Your task to perform on an android device: turn off location history Image 0: 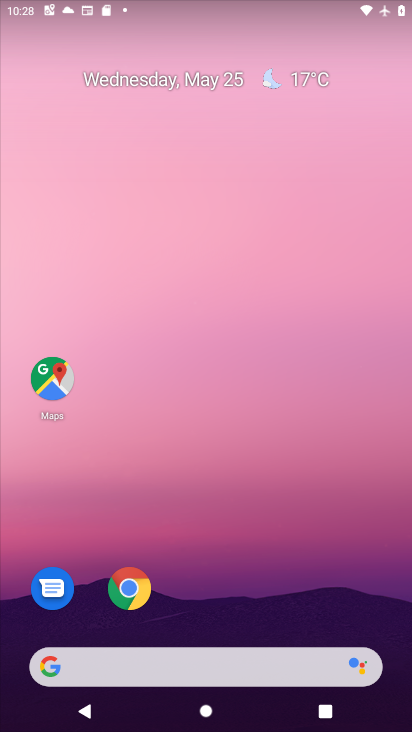
Step 0: drag from (372, 601) to (358, 86)
Your task to perform on an android device: turn off location history Image 1: 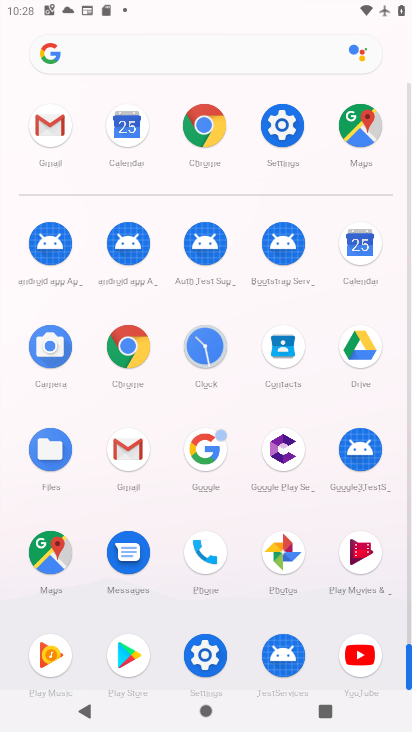
Step 1: click (291, 134)
Your task to perform on an android device: turn off location history Image 2: 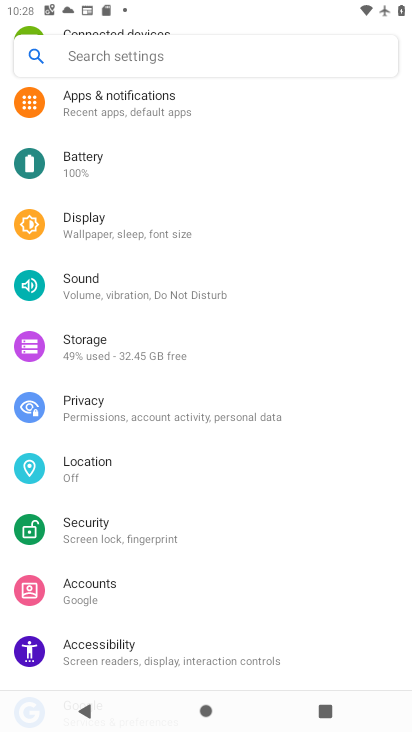
Step 2: drag from (314, 223) to (313, 343)
Your task to perform on an android device: turn off location history Image 3: 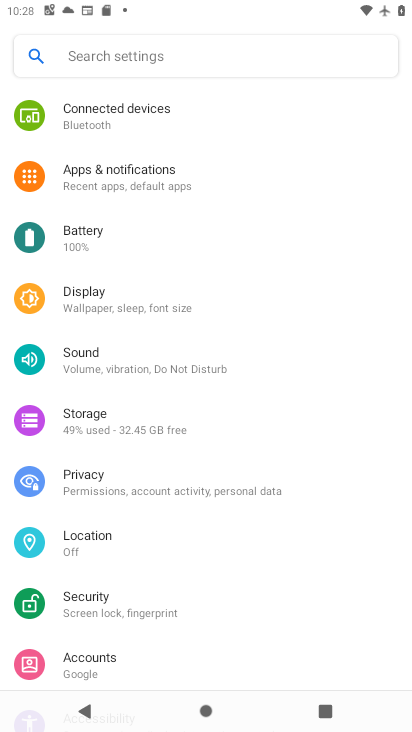
Step 3: drag from (297, 135) to (299, 282)
Your task to perform on an android device: turn off location history Image 4: 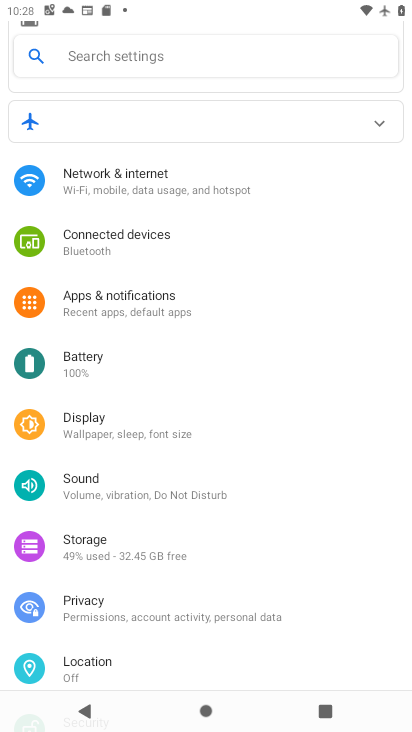
Step 4: drag from (301, 207) to (306, 387)
Your task to perform on an android device: turn off location history Image 5: 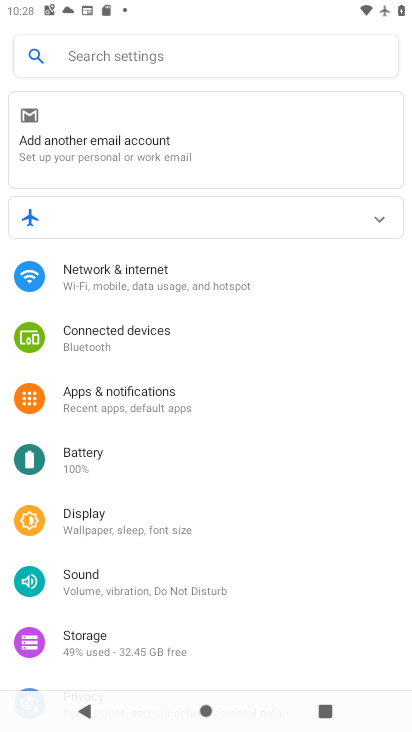
Step 5: drag from (319, 262) to (299, 417)
Your task to perform on an android device: turn off location history Image 6: 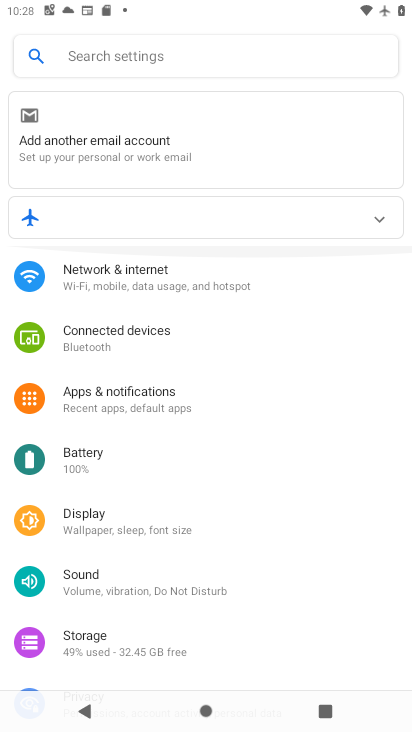
Step 6: drag from (288, 450) to (280, 291)
Your task to perform on an android device: turn off location history Image 7: 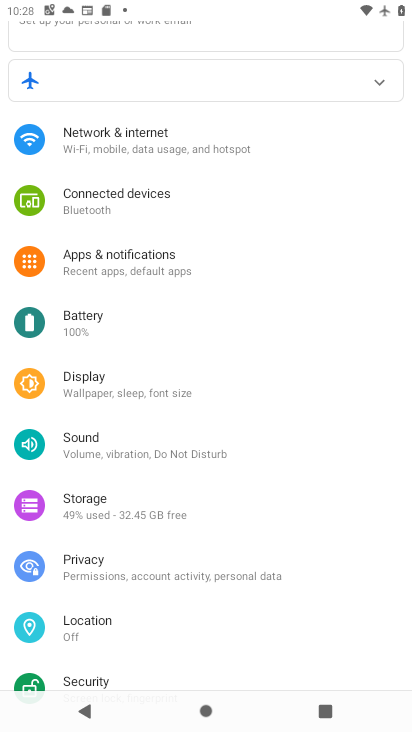
Step 7: drag from (274, 466) to (266, 336)
Your task to perform on an android device: turn off location history Image 8: 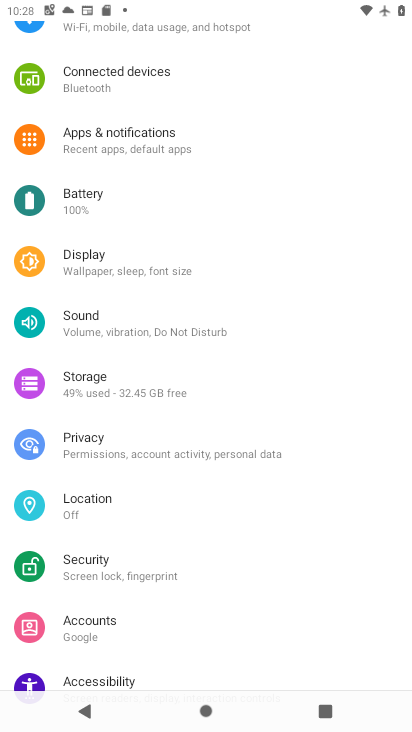
Step 8: drag from (285, 530) to (277, 401)
Your task to perform on an android device: turn off location history Image 9: 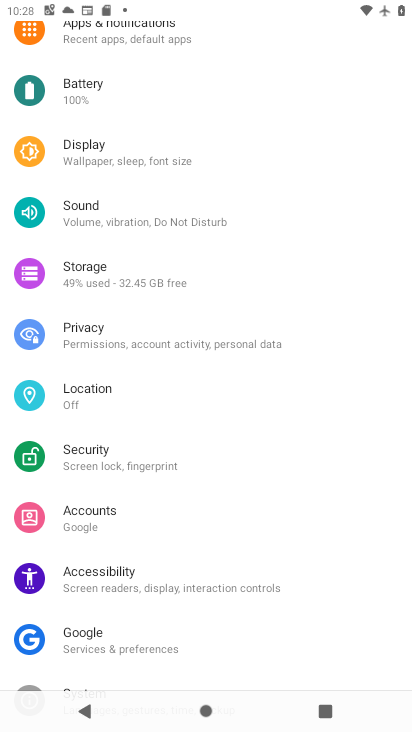
Step 9: drag from (292, 549) to (302, 371)
Your task to perform on an android device: turn off location history Image 10: 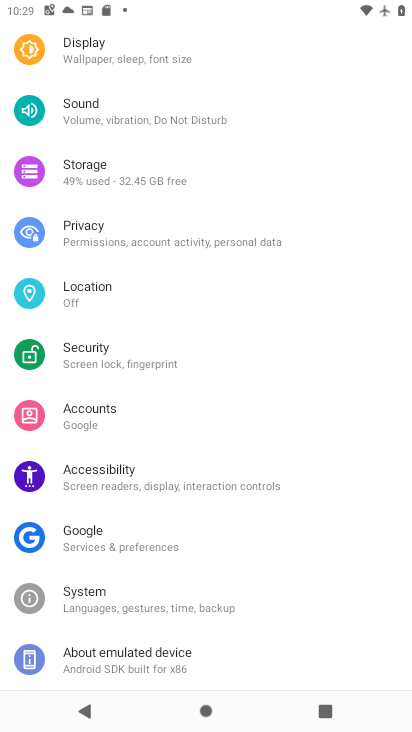
Step 10: drag from (315, 576) to (311, 375)
Your task to perform on an android device: turn off location history Image 11: 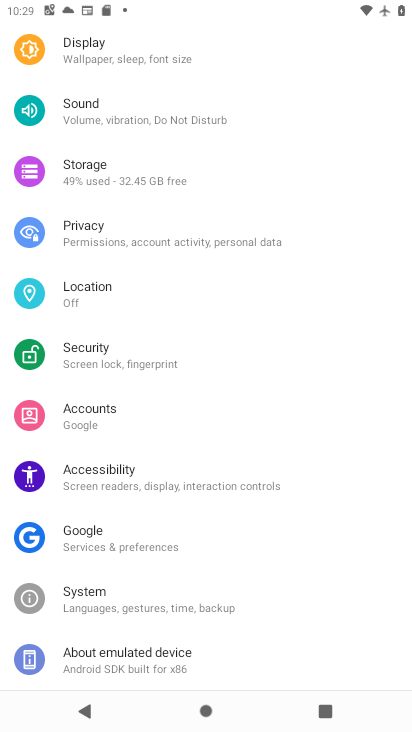
Step 11: drag from (301, 285) to (287, 436)
Your task to perform on an android device: turn off location history Image 12: 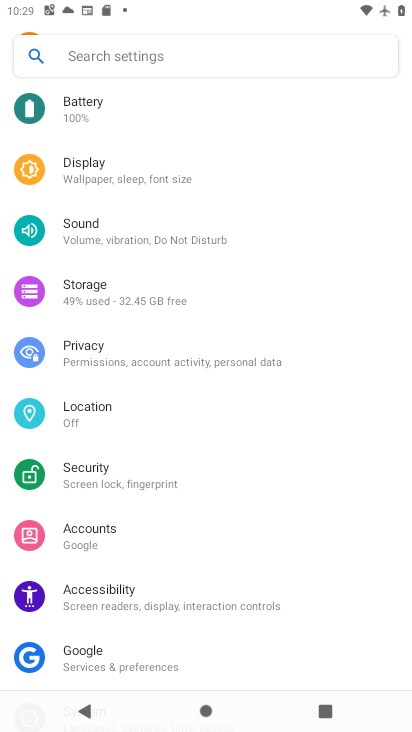
Step 12: drag from (302, 253) to (294, 438)
Your task to perform on an android device: turn off location history Image 13: 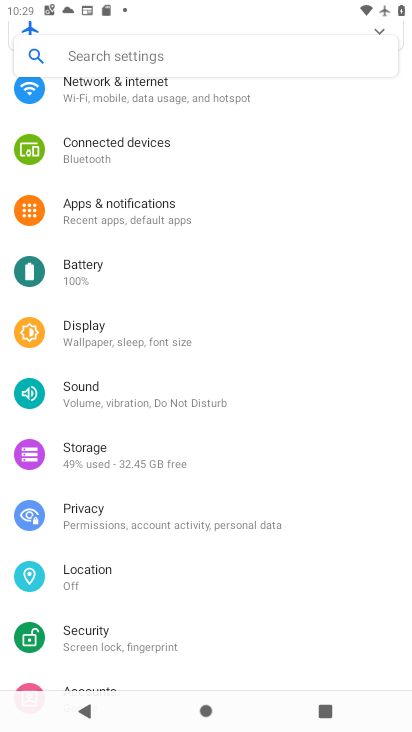
Step 13: drag from (290, 266) to (290, 375)
Your task to perform on an android device: turn off location history Image 14: 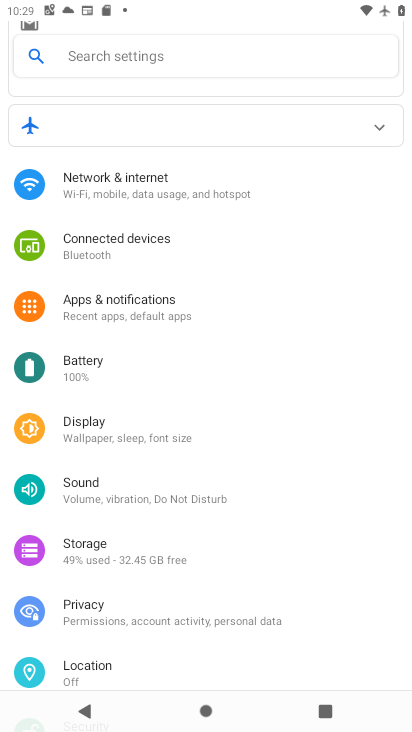
Step 14: drag from (265, 526) to (272, 351)
Your task to perform on an android device: turn off location history Image 15: 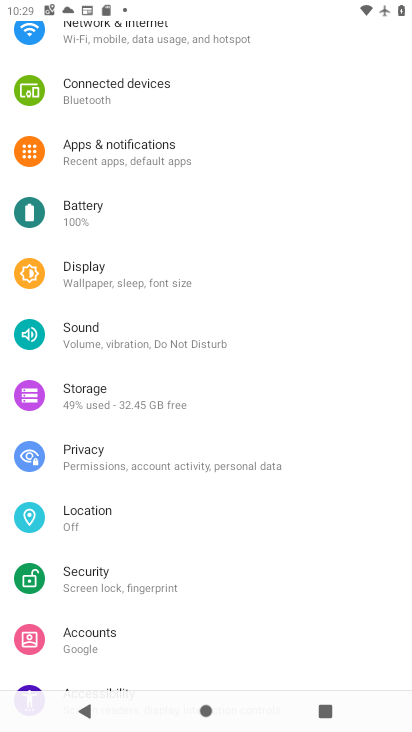
Step 15: drag from (271, 542) to (282, 416)
Your task to perform on an android device: turn off location history Image 16: 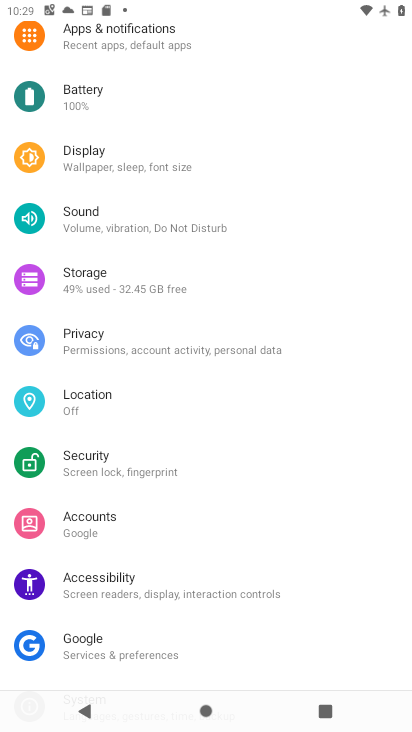
Step 16: click (98, 421)
Your task to perform on an android device: turn off location history Image 17: 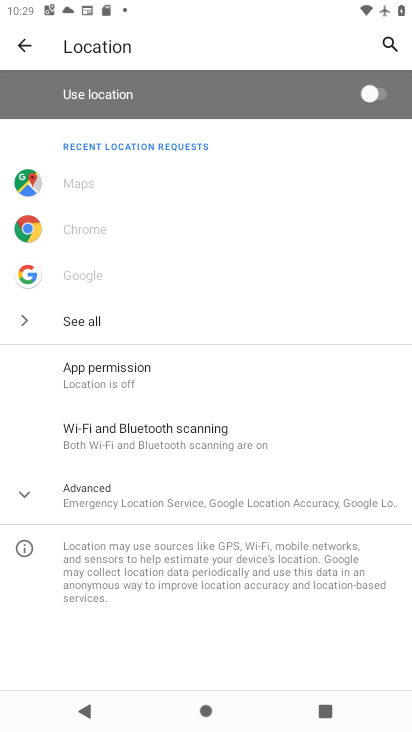
Step 17: task complete